Your task to perform on an android device: delete the emails in spam in the gmail app Image 0: 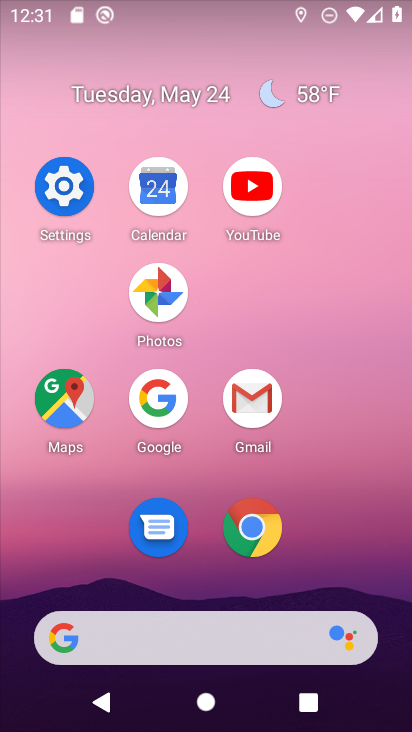
Step 0: click (271, 393)
Your task to perform on an android device: delete the emails in spam in the gmail app Image 1: 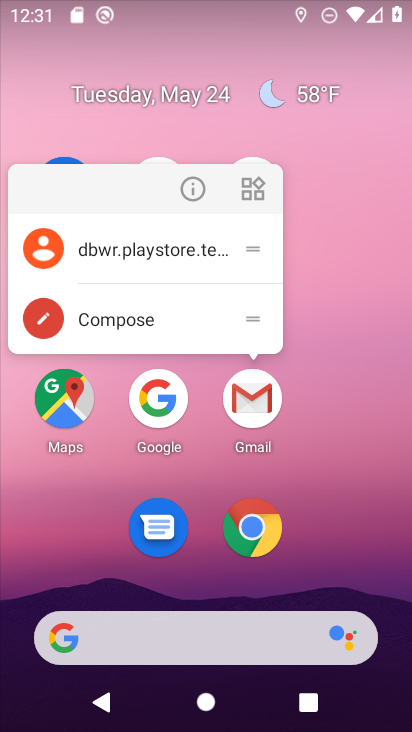
Step 1: click (269, 390)
Your task to perform on an android device: delete the emails in spam in the gmail app Image 2: 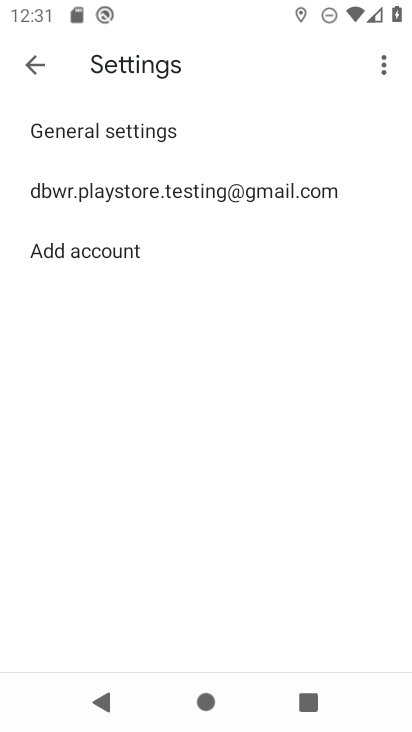
Step 2: click (27, 80)
Your task to perform on an android device: delete the emails in spam in the gmail app Image 3: 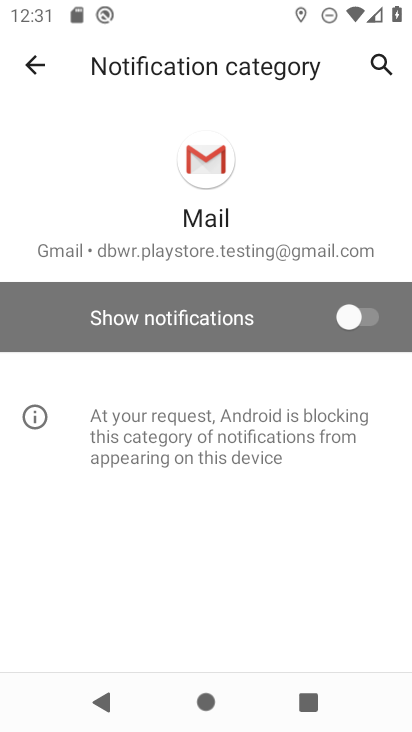
Step 3: click (26, 80)
Your task to perform on an android device: delete the emails in spam in the gmail app Image 4: 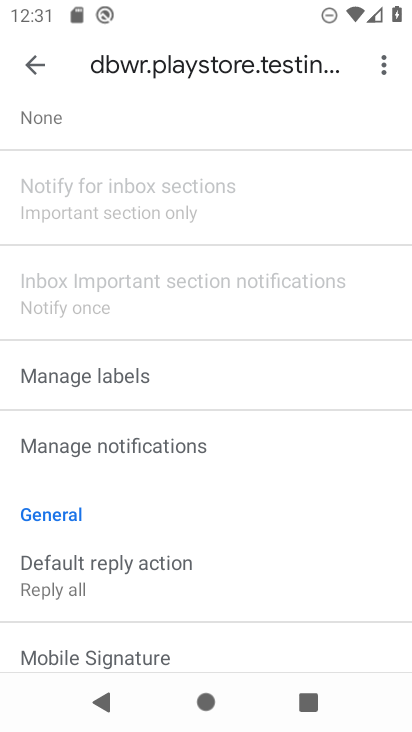
Step 4: drag from (183, 521) to (156, 144)
Your task to perform on an android device: delete the emails in spam in the gmail app Image 5: 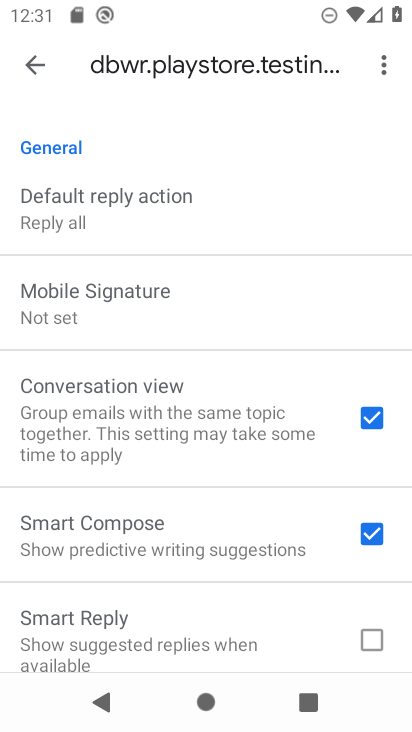
Step 5: click (48, 54)
Your task to perform on an android device: delete the emails in spam in the gmail app Image 6: 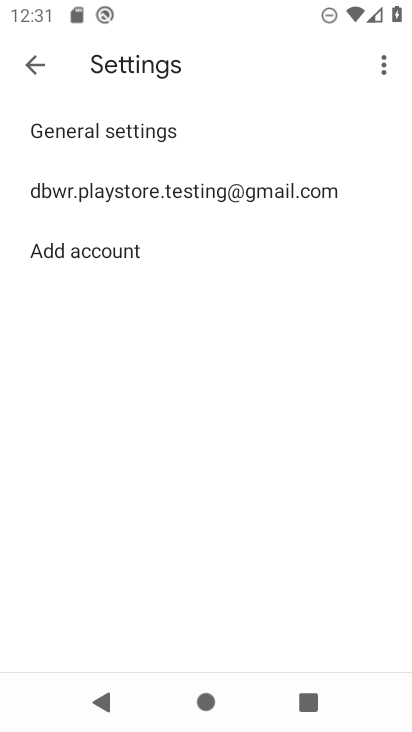
Step 6: click (47, 81)
Your task to perform on an android device: delete the emails in spam in the gmail app Image 7: 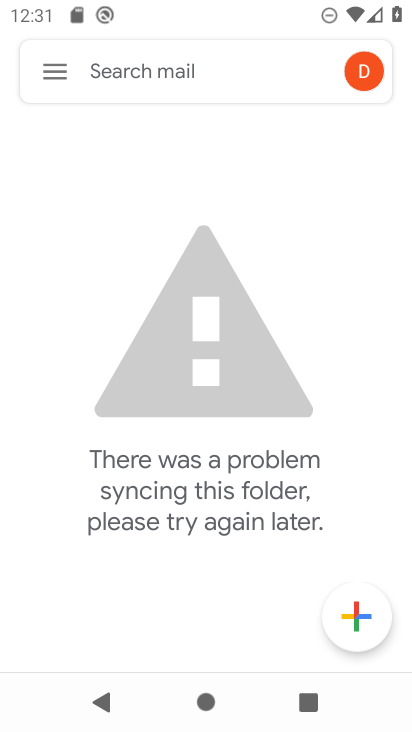
Step 7: click (65, 98)
Your task to perform on an android device: delete the emails in spam in the gmail app Image 8: 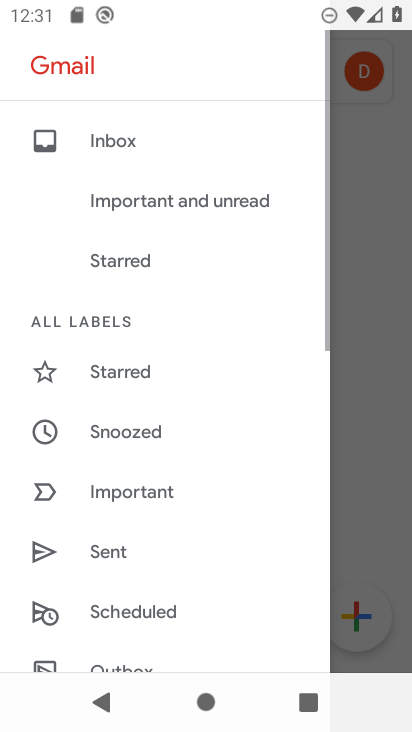
Step 8: drag from (158, 510) to (106, 178)
Your task to perform on an android device: delete the emails in spam in the gmail app Image 9: 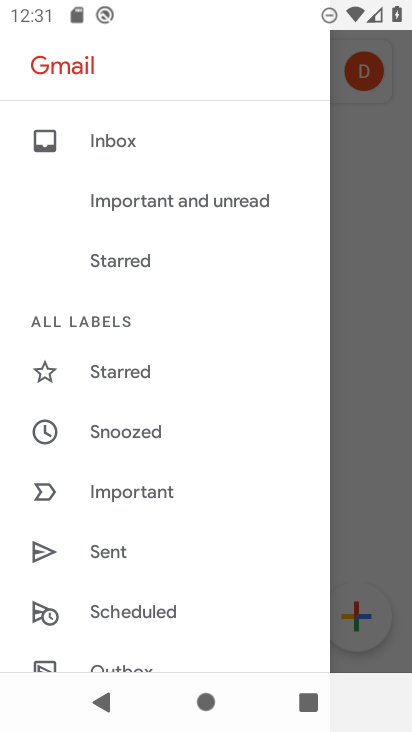
Step 9: drag from (132, 587) to (141, 235)
Your task to perform on an android device: delete the emails in spam in the gmail app Image 10: 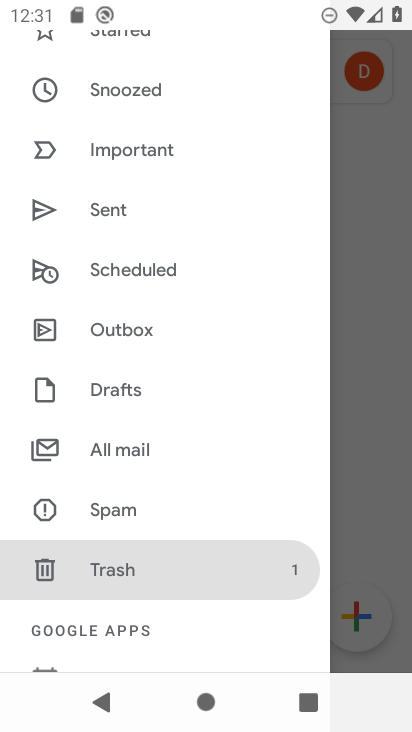
Step 10: click (138, 524)
Your task to perform on an android device: delete the emails in spam in the gmail app Image 11: 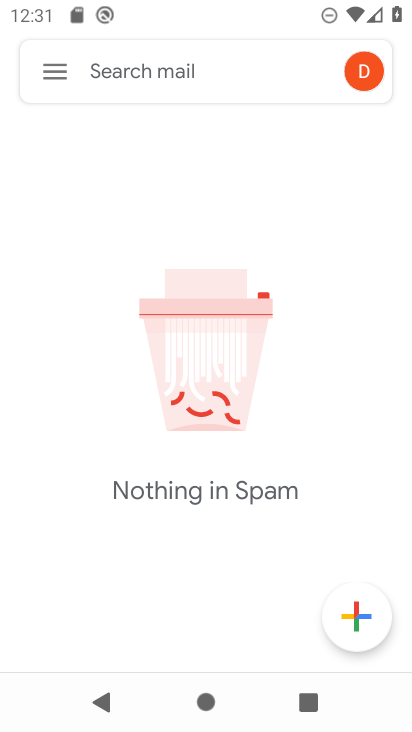
Step 11: task complete